Your task to perform on an android device: snooze an email in the gmail app Image 0: 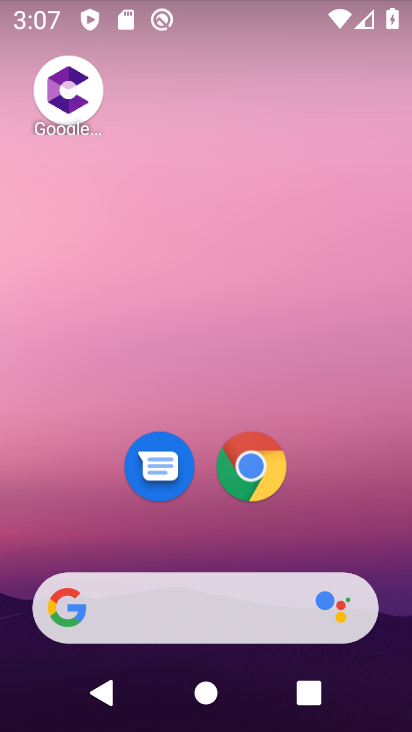
Step 0: drag from (362, 526) to (411, 9)
Your task to perform on an android device: snooze an email in the gmail app Image 1: 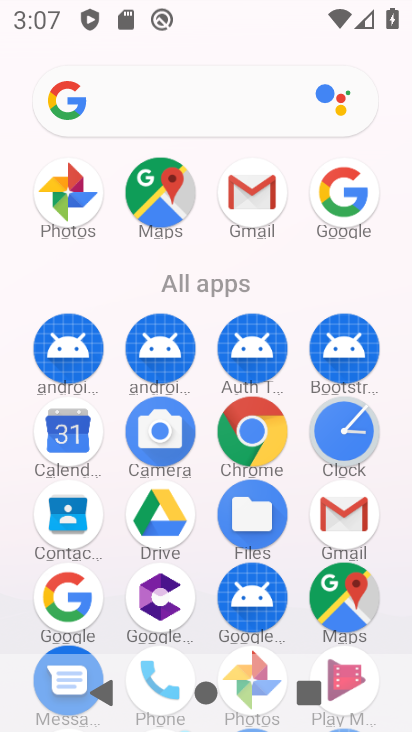
Step 1: click (255, 212)
Your task to perform on an android device: snooze an email in the gmail app Image 2: 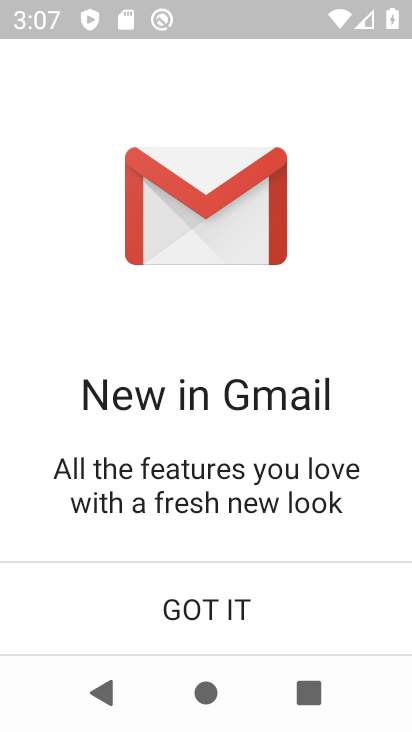
Step 2: click (236, 614)
Your task to perform on an android device: snooze an email in the gmail app Image 3: 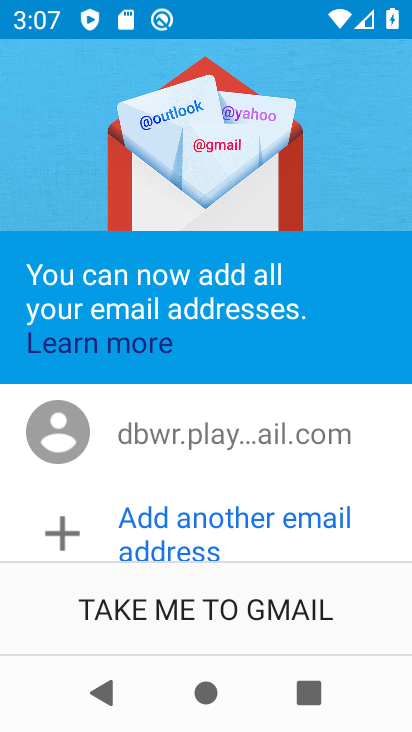
Step 3: click (236, 612)
Your task to perform on an android device: snooze an email in the gmail app Image 4: 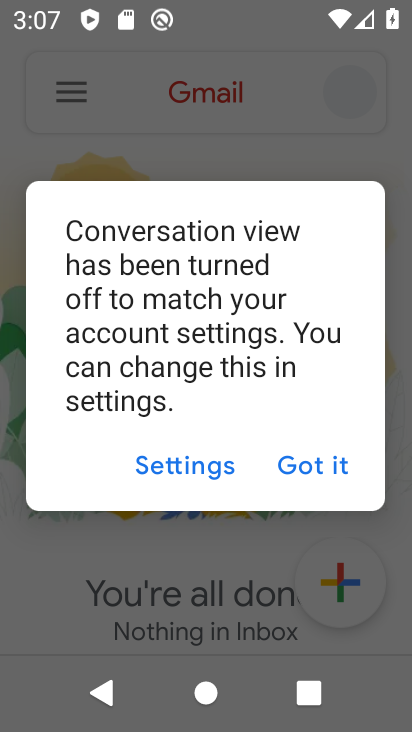
Step 4: click (319, 469)
Your task to perform on an android device: snooze an email in the gmail app Image 5: 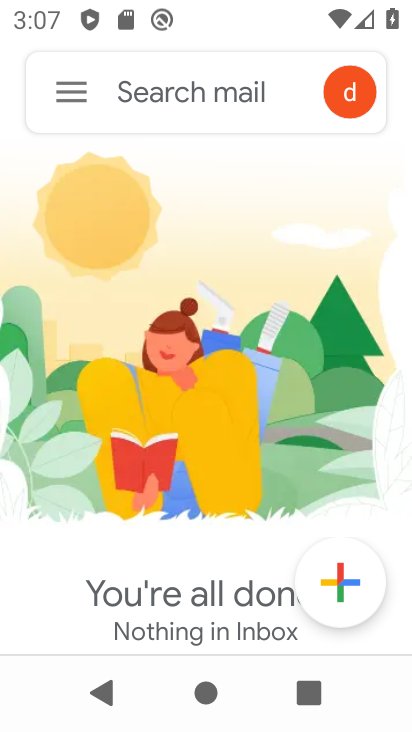
Step 5: click (75, 90)
Your task to perform on an android device: snooze an email in the gmail app Image 6: 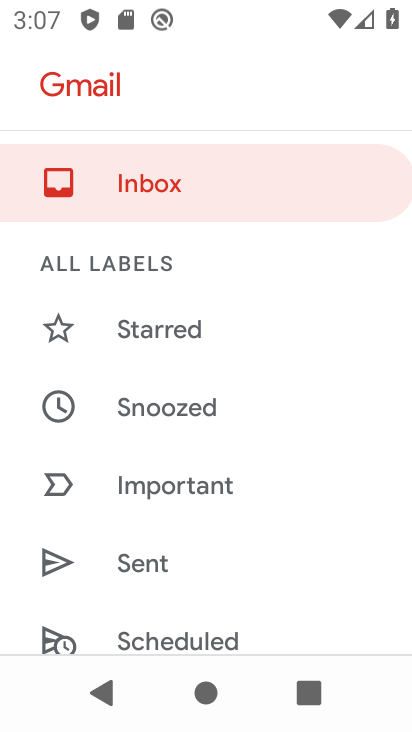
Step 6: click (182, 398)
Your task to perform on an android device: snooze an email in the gmail app Image 7: 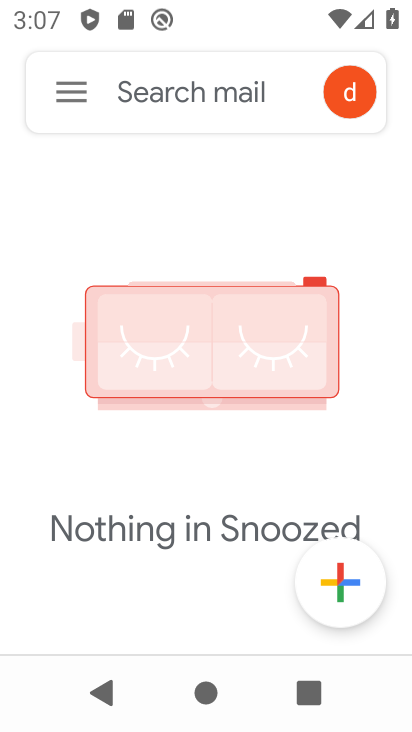
Step 7: task complete